Your task to perform on an android device: Open wifi settings Image 0: 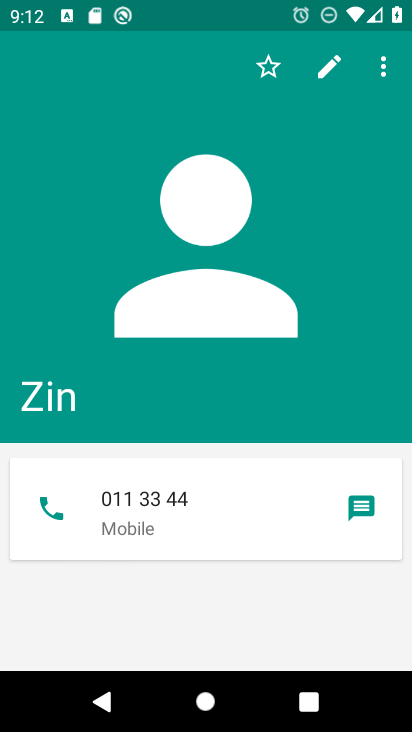
Step 0: press home button
Your task to perform on an android device: Open wifi settings Image 1: 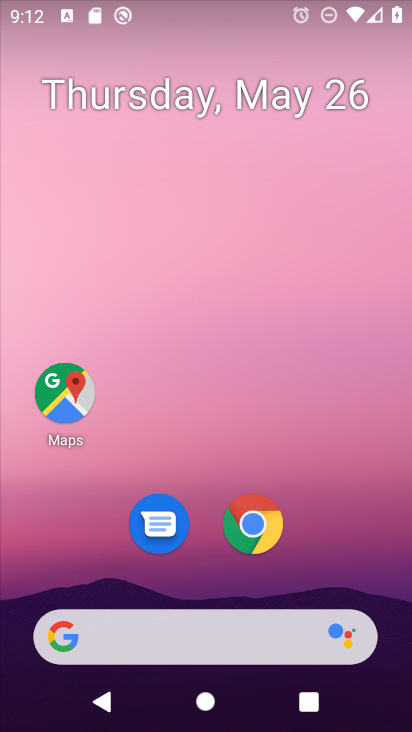
Step 1: drag from (318, 516) to (279, 39)
Your task to perform on an android device: Open wifi settings Image 2: 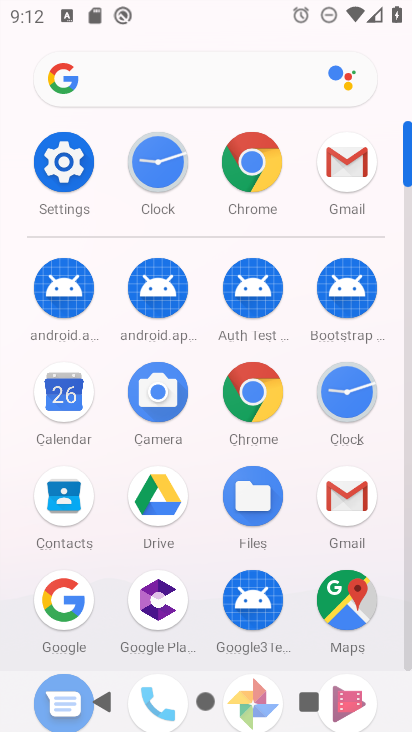
Step 2: click (69, 162)
Your task to perform on an android device: Open wifi settings Image 3: 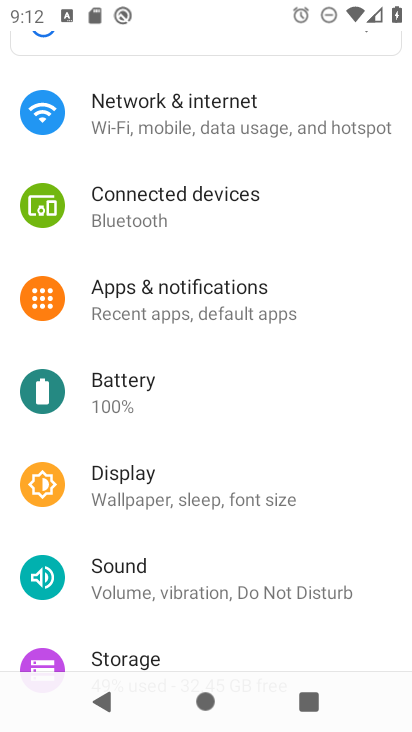
Step 3: click (238, 121)
Your task to perform on an android device: Open wifi settings Image 4: 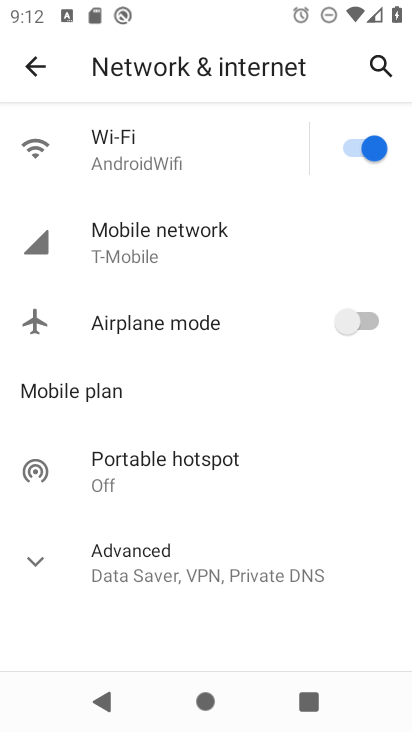
Step 4: click (229, 153)
Your task to perform on an android device: Open wifi settings Image 5: 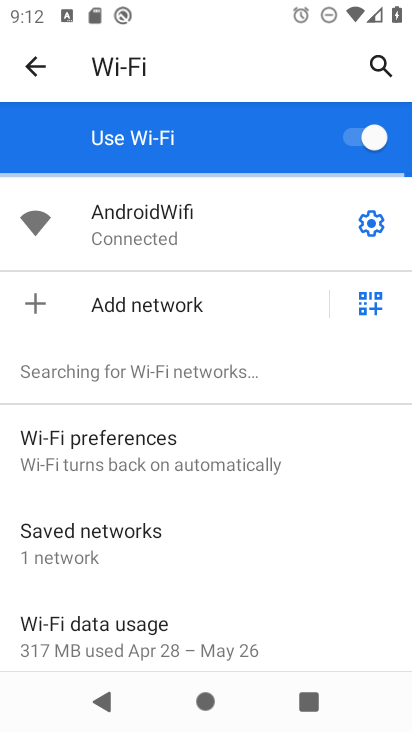
Step 5: task complete